Your task to perform on an android device: toggle improve location accuracy Image 0: 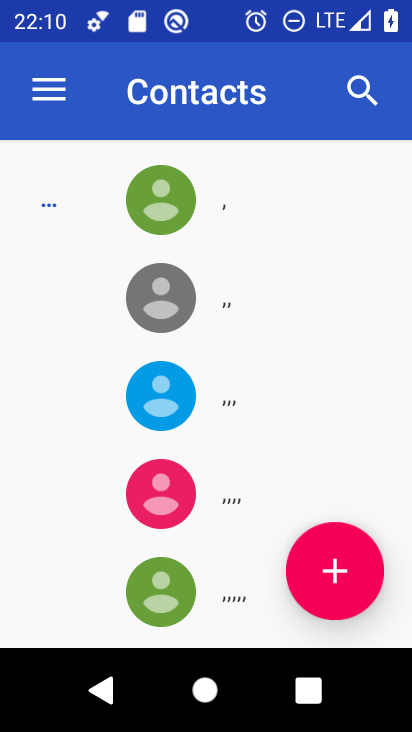
Step 0: press home button
Your task to perform on an android device: toggle improve location accuracy Image 1: 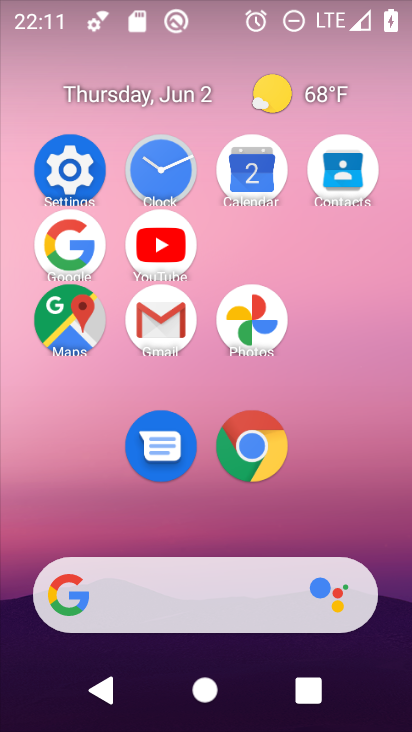
Step 1: click (51, 166)
Your task to perform on an android device: toggle improve location accuracy Image 2: 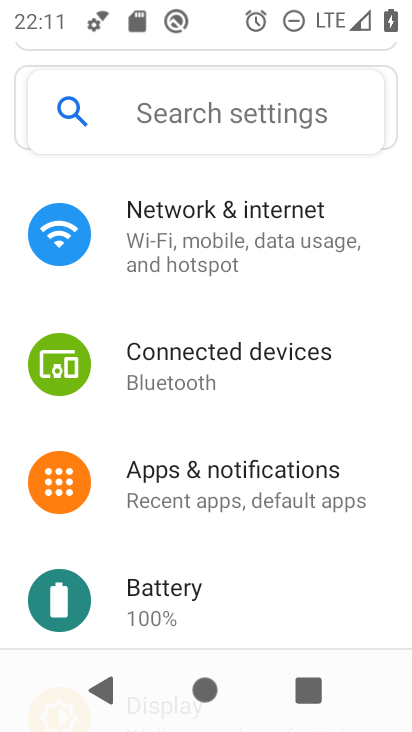
Step 2: drag from (302, 550) to (260, 145)
Your task to perform on an android device: toggle improve location accuracy Image 3: 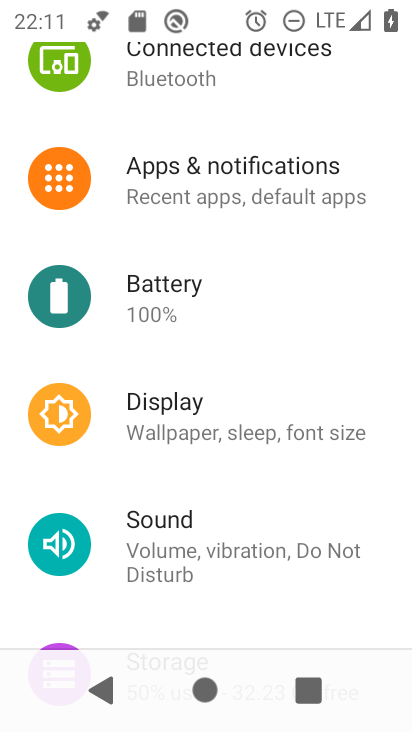
Step 3: drag from (247, 514) to (216, 144)
Your task to perform on an android device: toggle improve location accuracy Image 4: 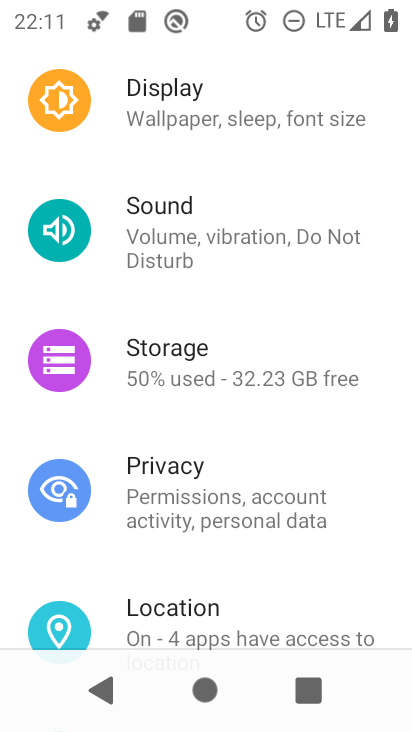
Step 4: click (212, 615)
Your task to perform on an android device: toggle improve location accuracy Image 5: 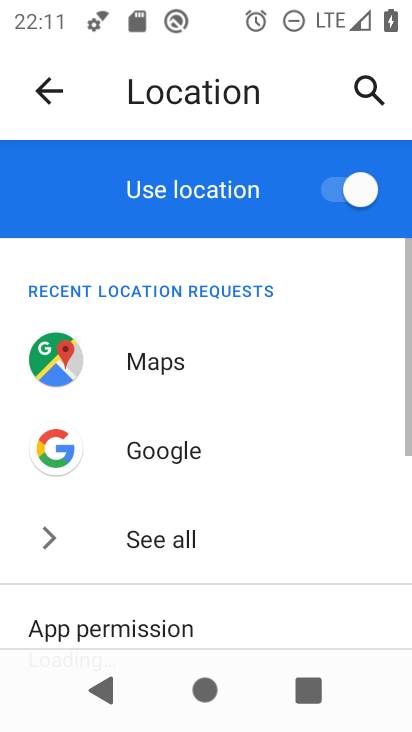
Step 5: drag from (210, 608) to (138, 220)
Your task to perform on an android device: toggle improve location accuracy Image 6: 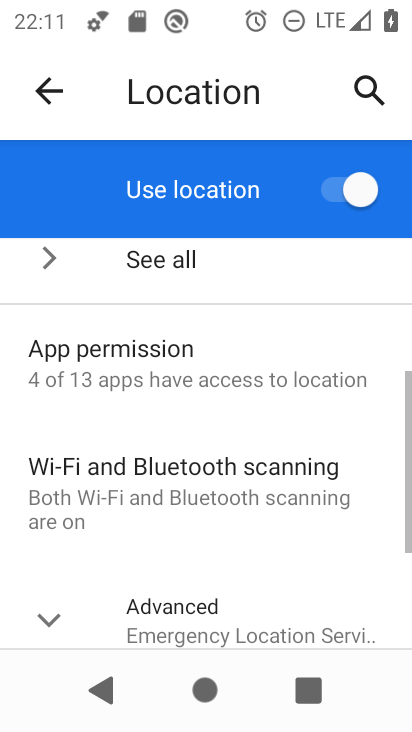
Step 6: click (214, 595)
Your task to perform on an android device: toggle improve location accuracy Image 7: 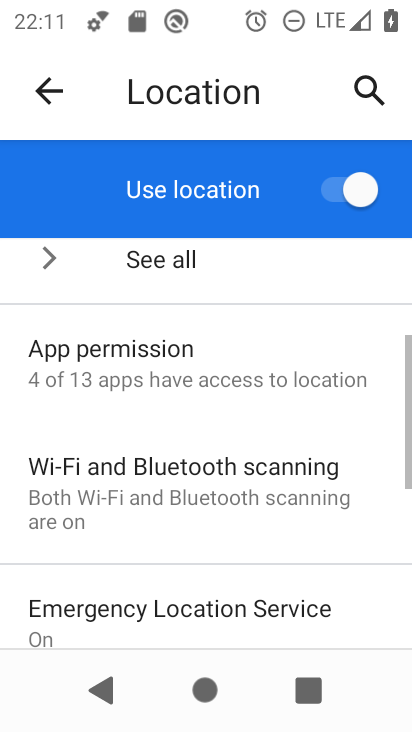
Step 7: drag from (214, 595) to (189, 194)
Your task to perform on an android device: toggle improve location accuracy Image 8: 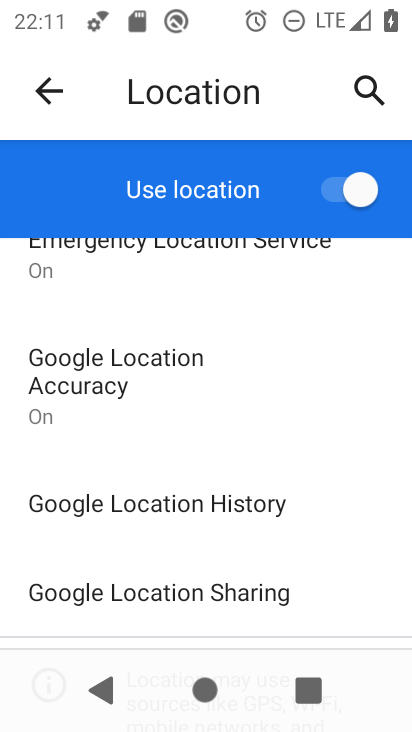
Step 8: click (221, 372)
Your task to perform on an android device: toggle improve location accuracy Image 9: 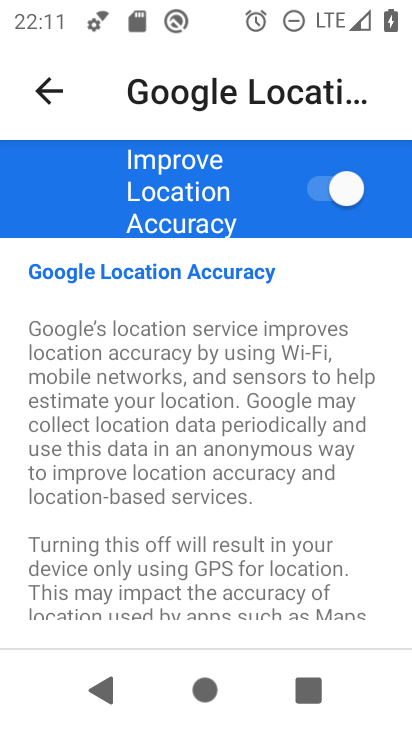
Step 9: click (346, 188)
Your task to perform on an android device: toggle improve location accuracy Image 10: 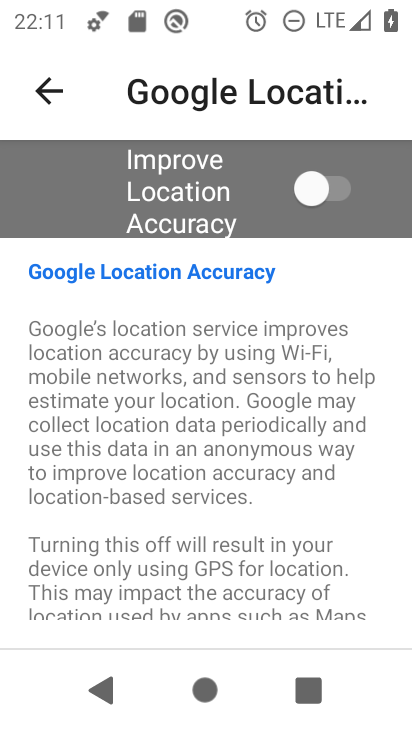
Step 10: task complete